Your task to perform on an android device: delete a single message in the gmail app Image 0: 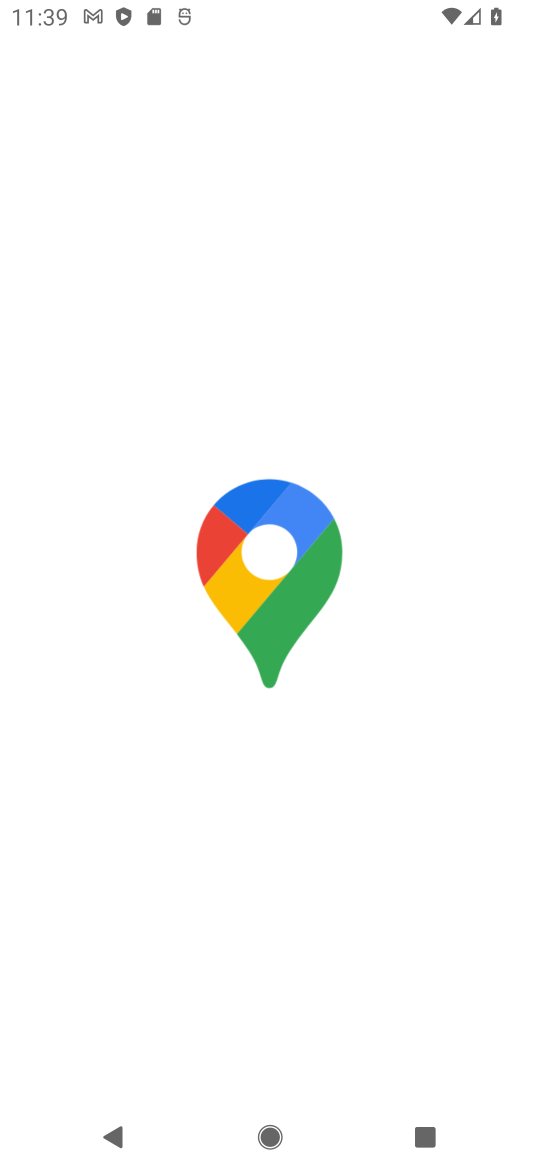
Step 0: press home button
Your task to perform on an android device: delete a single message in the gmail app Image 1: 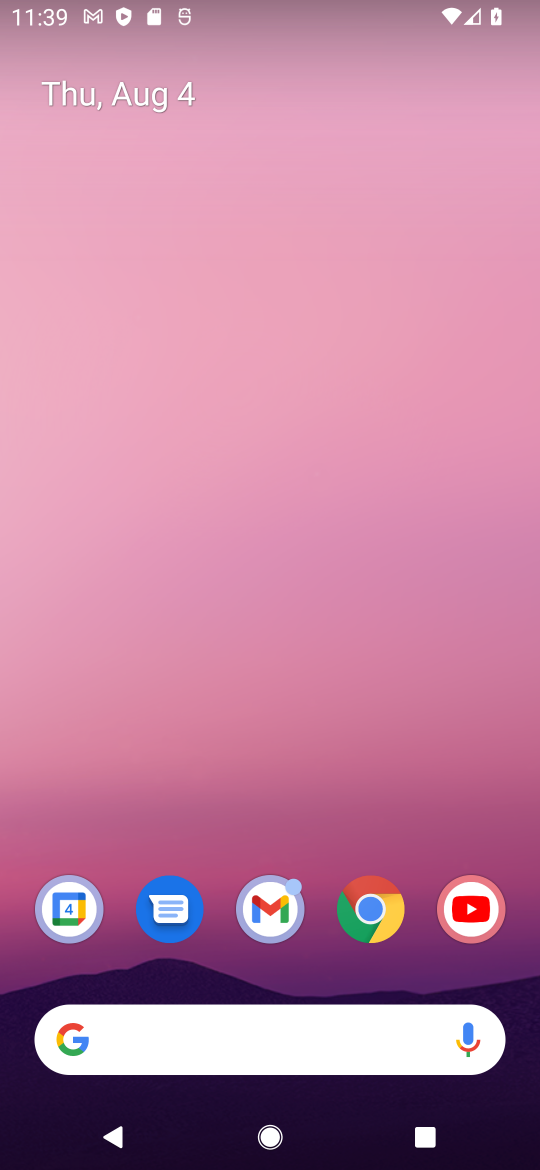
Step 1: click (249, 914)
Your task to perform on an android device: delete a single message in the gmail app Image 2: 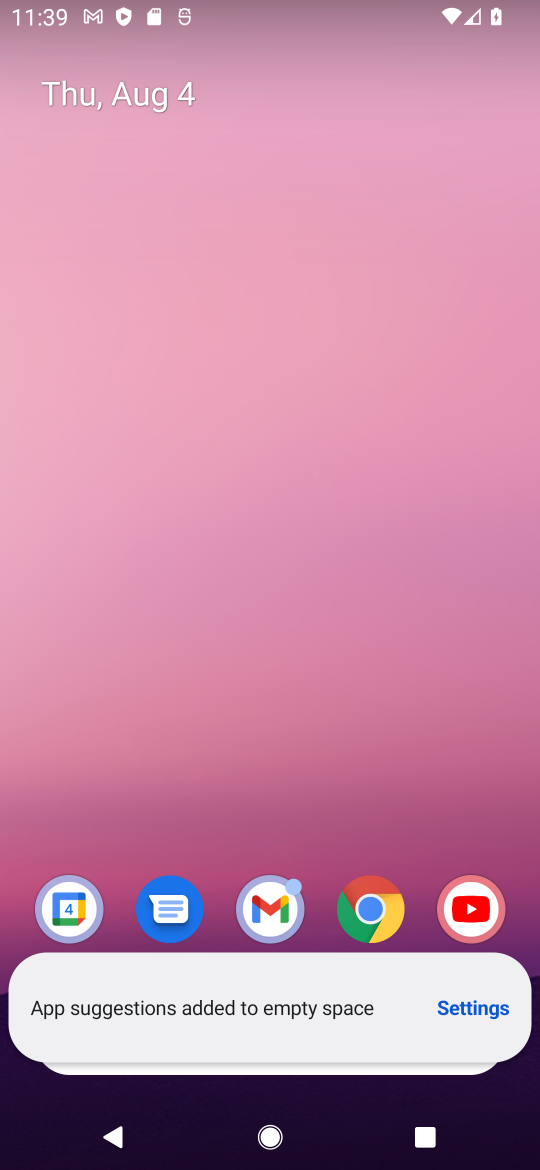
Step 2: click (271, 911)
Your task to perform on an android device: delete a single message in the gmail app Image 3: 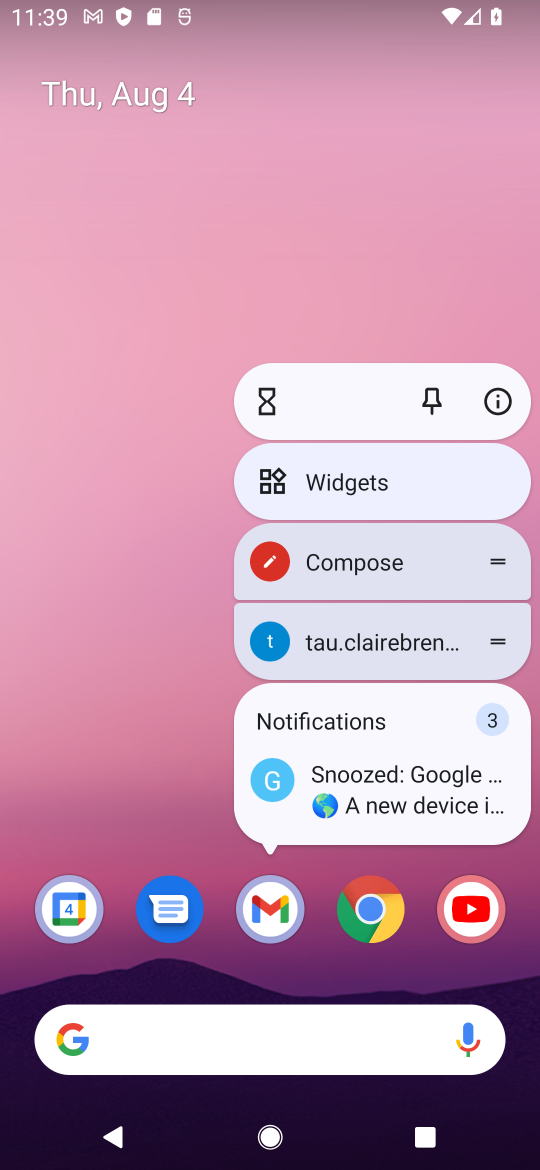
Step 3: click (271, 911)
Your task to perform on an android device: delete a single message in the gmail app Image 4: 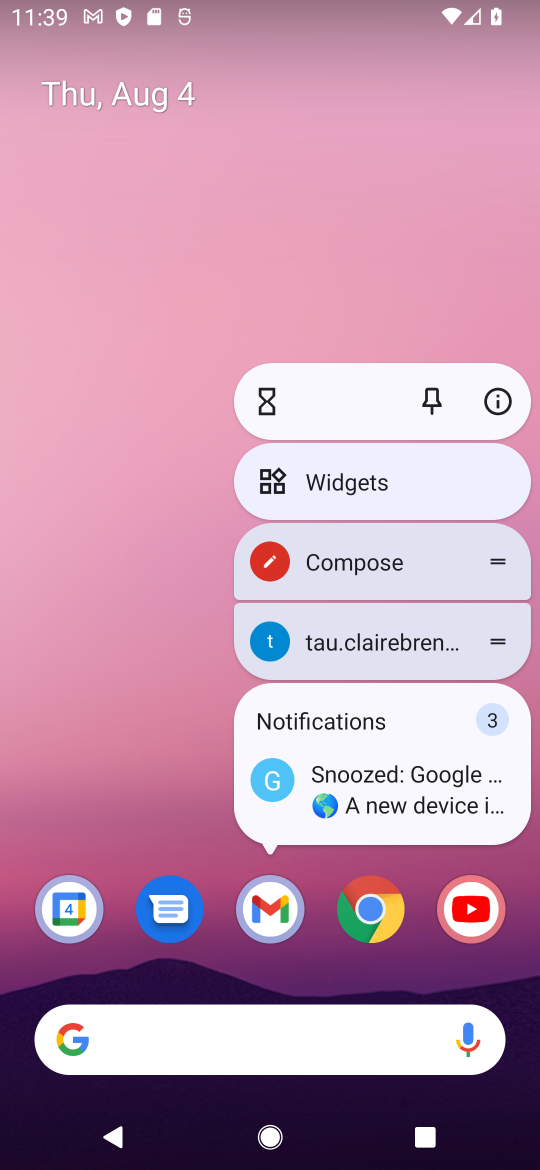
Step 4: click (271, 911)
Your task to perform on an android device: delete a single message in the gmail app Image 5: 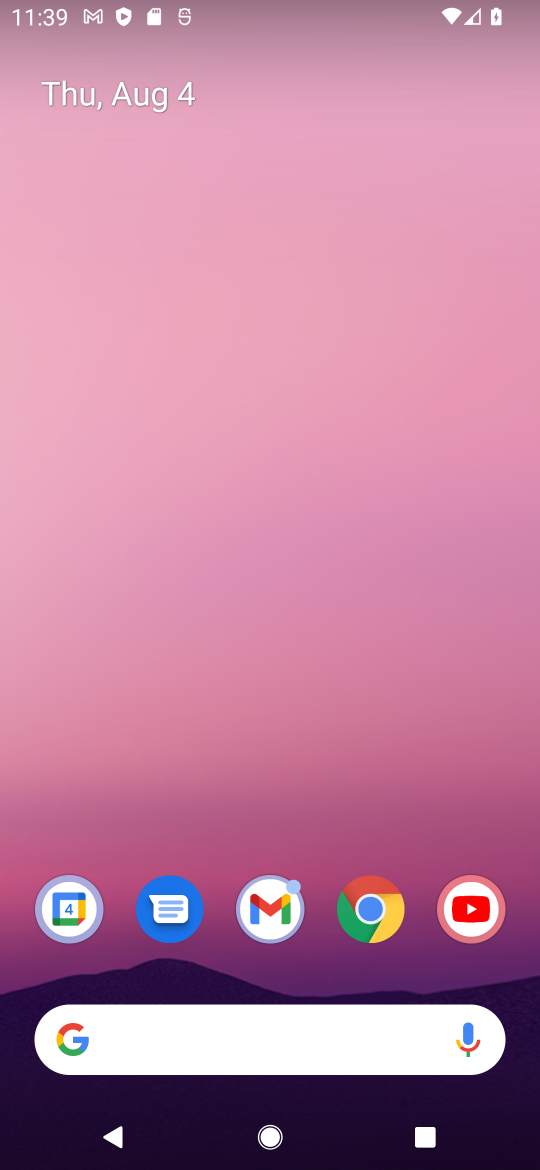
Step 5: click (271, 911)
Your task to perform on an android device: delete a single message in the gmail app Image 6: 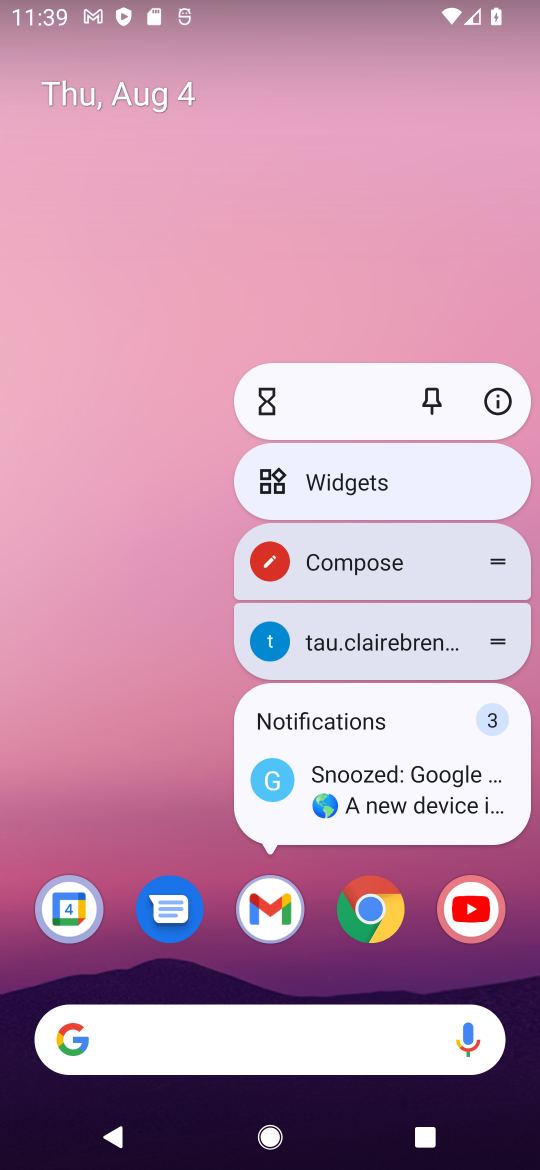
Step 6: click (271, 911)
Your task to perform on an android device: delete a single message in the gmail app Image 7: 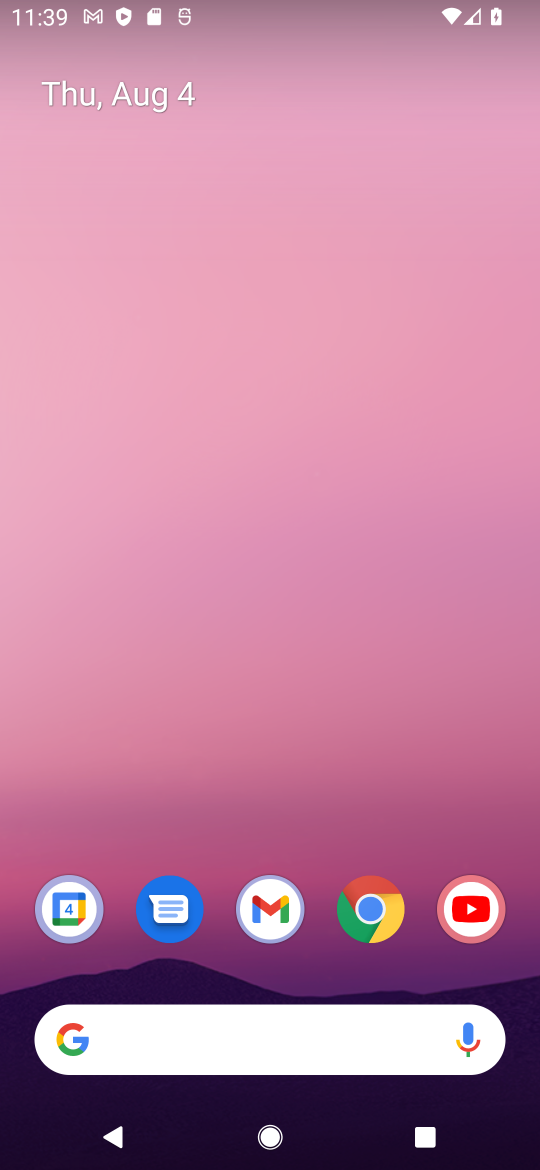
Step 7: click (272, 955)
Your task to perform on an android device: delete a single message in the gmail app Image 8: 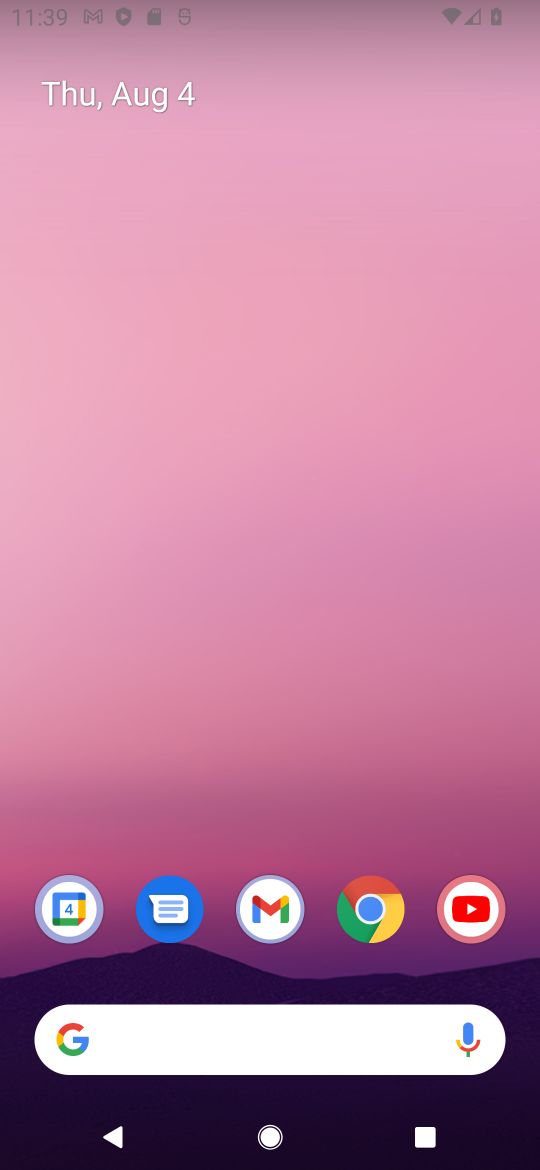
Step 8: click (272, 955)
Your task to perform on an android device: delete a single message in the gmail app Image 9: 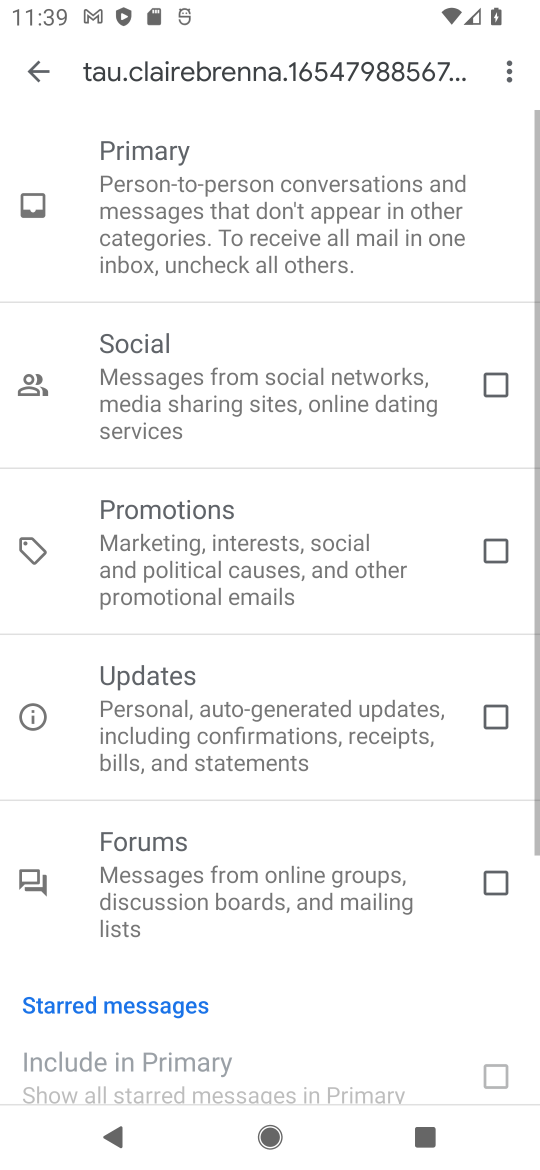
Step 9: click (272, 955)
Your task to perform on an android device: delete a single message in the gmail app Image 10: 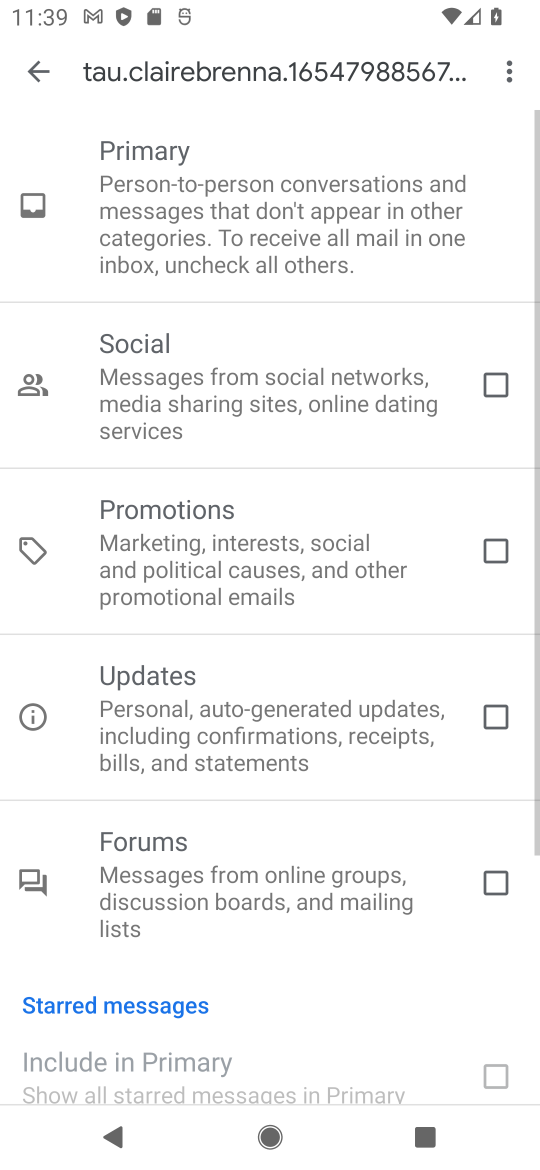
Step 10: click (272, 955)
Your task to perform on an android device: delete a single message in the gmail app Image 11: 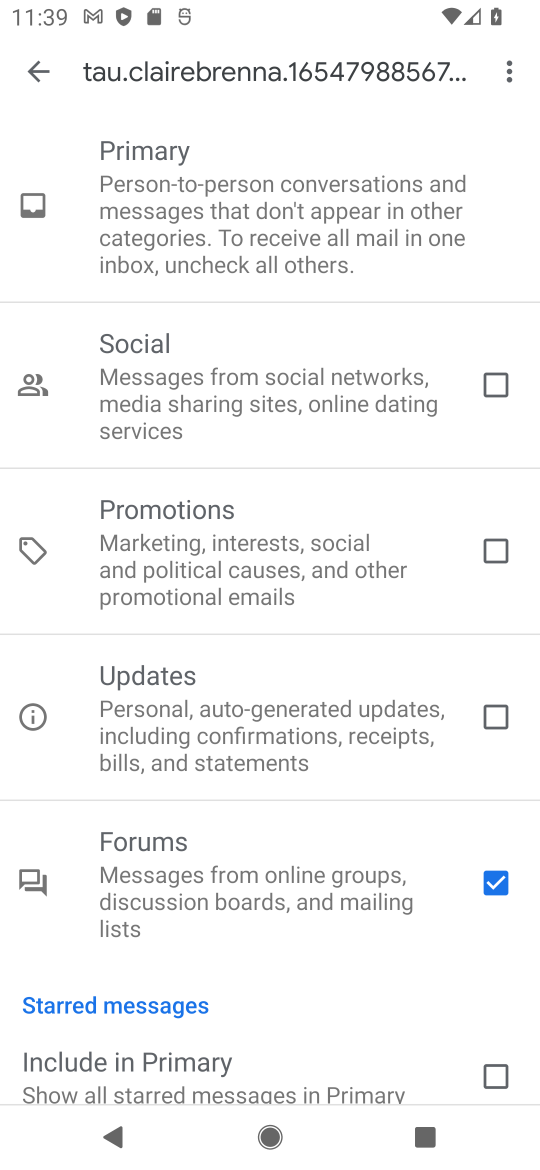
Step 11: click (31, 72)
Your task to perform on an android device: delete a single message in the gmail app Image 12: 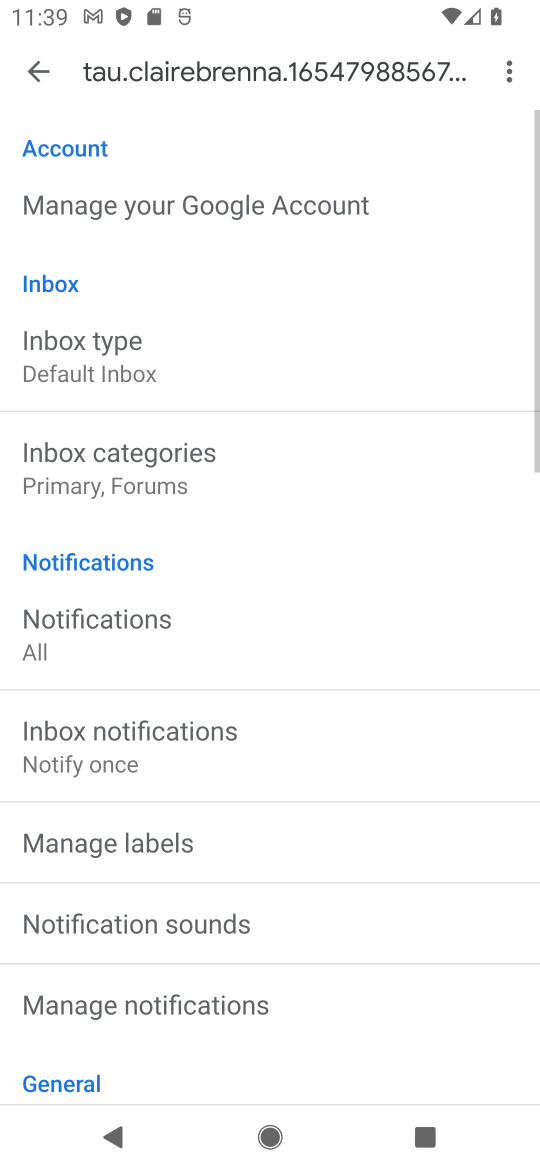
Step 12: click (55, 70)
Your task to perform on an android device: delete a single message in the gmail app Image 13: 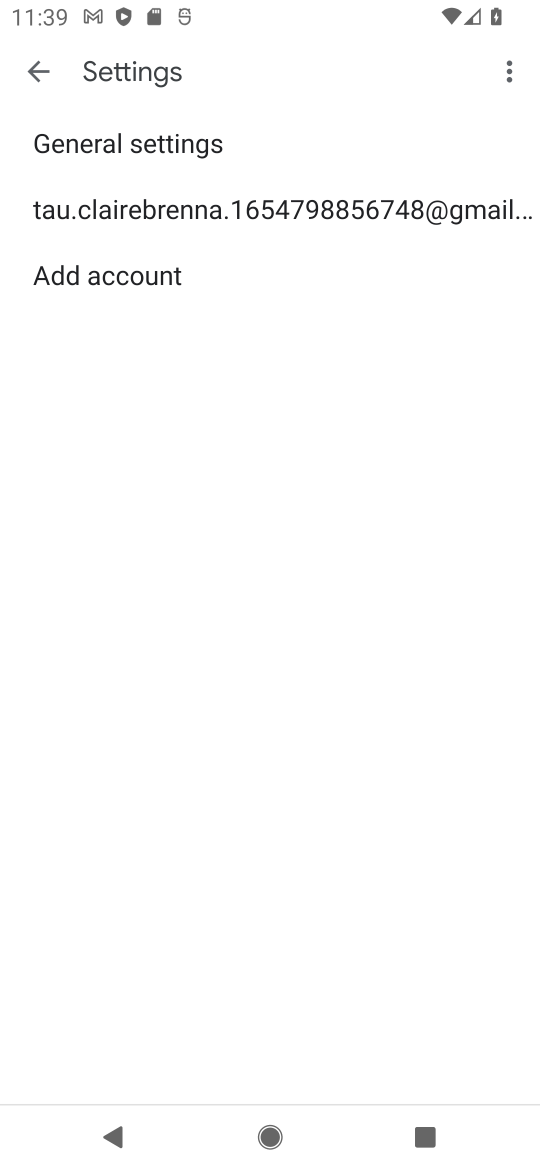
Step 13: click (55, 70)
Your task to perform on an android device: delete a single message in the gmail app Image 14: 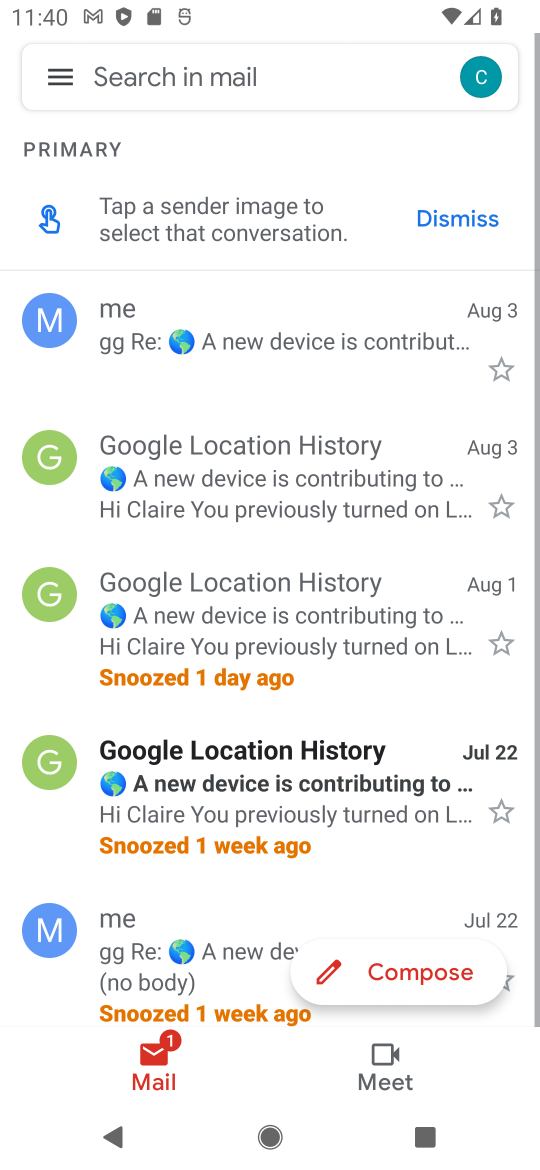
Step 14: click (361, 461)
Your task to perform on an android device: delete a single message in the gmail app Image 15: 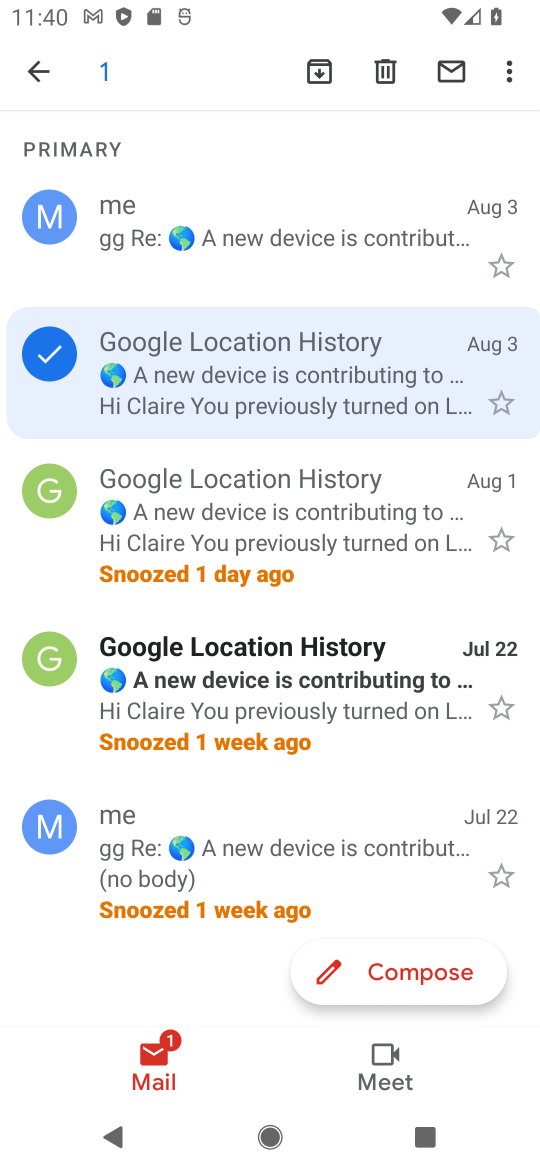
Step 15: click (379, 53)
Your task to perform on an android device: delete a single message in the gmail app Image 16: 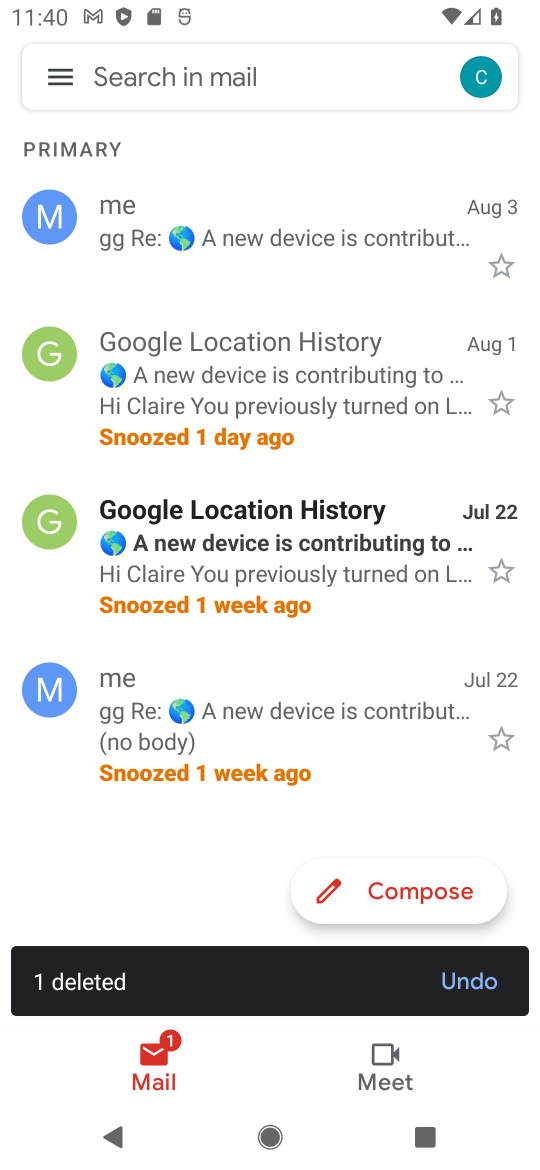
Step 16: task complete